Your task to perform on an android device: Check the news Image 0: 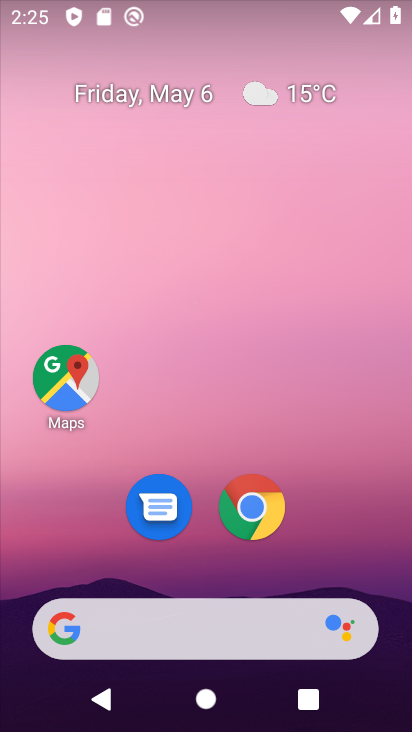
Step 0: drag from (336, 542) to (357, 125)
Your task to perform on an android device: Check the news Image 1: 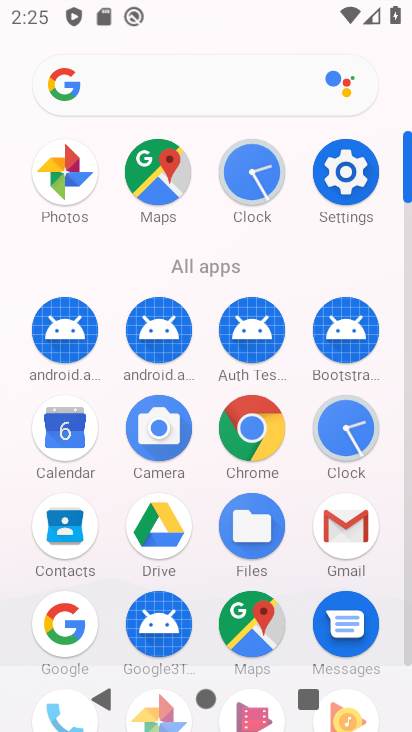
Step 1: click (256, 427)
Your task to perform on an android device: Check the news Image 2: 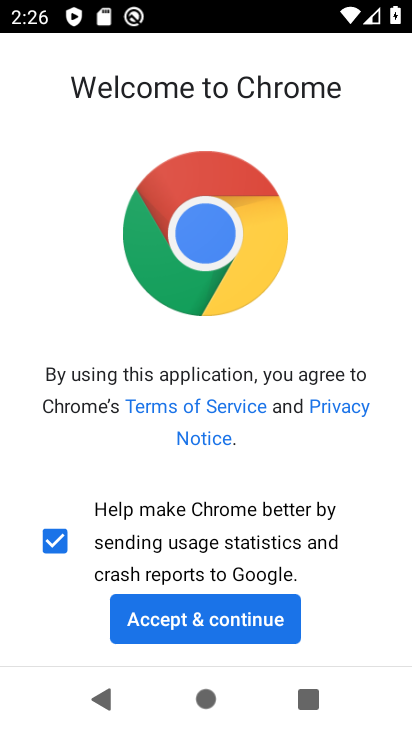
Step 2: click (207, 627)
Your task to perform on an android device: Check the news Image 3: 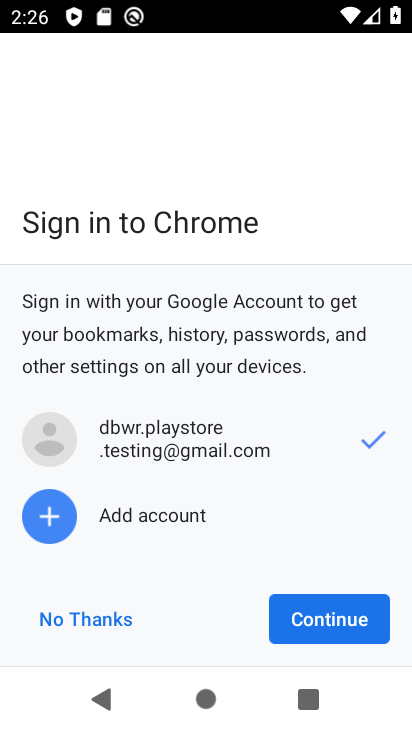
Step 3: click (335, 628)
Your task to perform on an android device: Check the news Image 4: 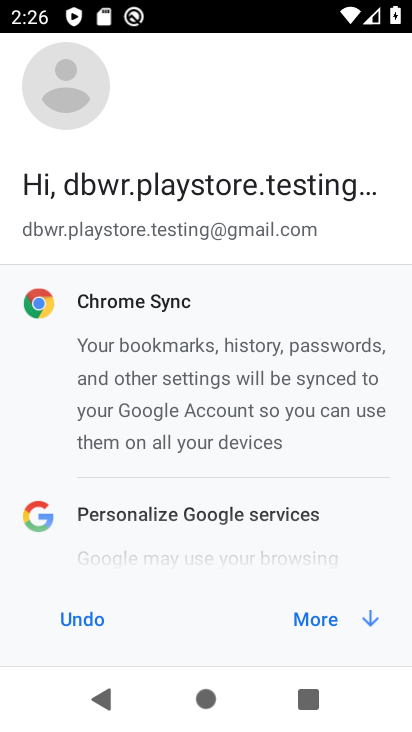
Step 4: click (322, 613)
Your task to perform on an android device: Check the news Image 5: 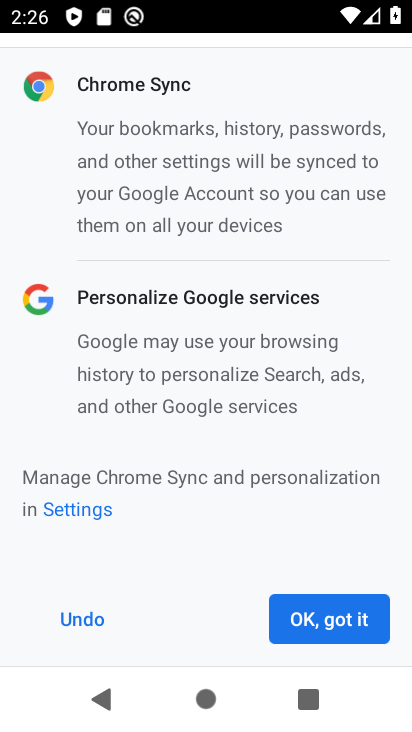
Step 5: click (321, 612)
Your task to perform on an android device: Check the news Image 6: 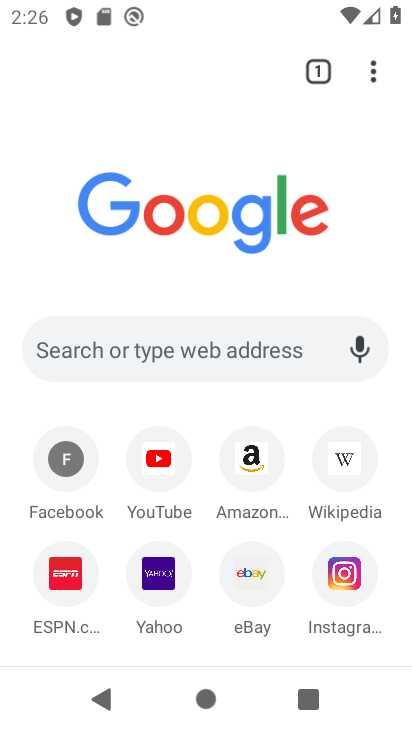
Step 6: click (152, 346)
Your task to perform on an android device: Check the news Image 7: 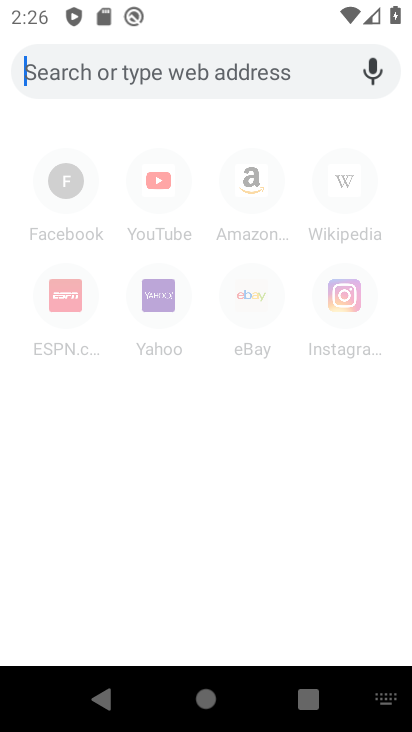
Step 7: type "check the news"
Your task to perform on an android device: Check the news Image 8: 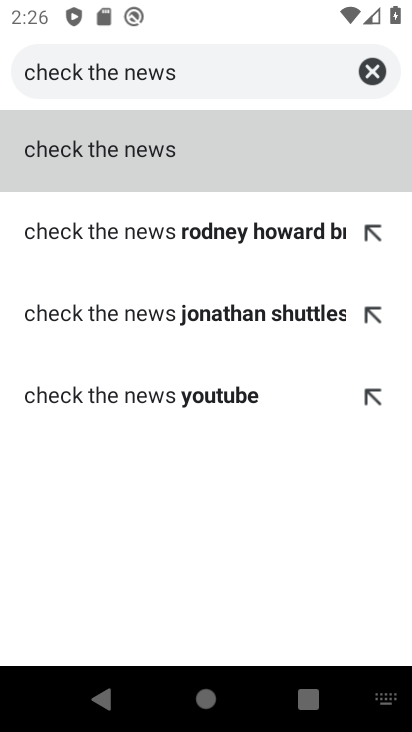
Step 8: click (92, 155)
Your task to perform on an android device: Check the news Image 9: 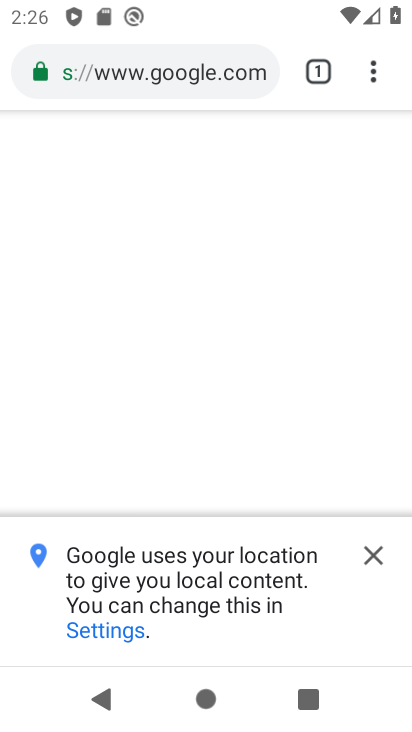
Step 9: click (372, 565)
Your task to perform on an android device: Check the news Image 10: 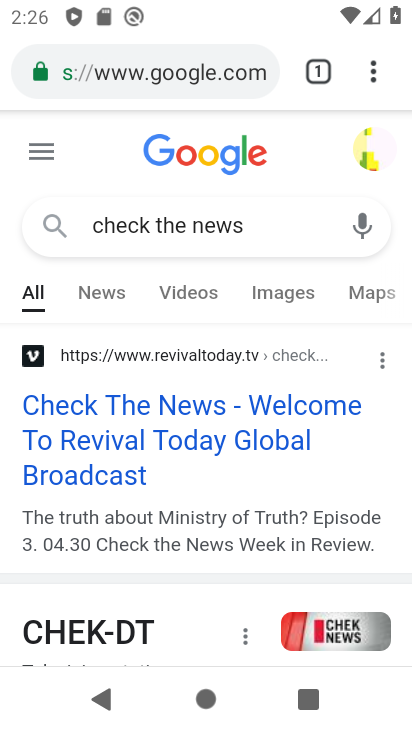
Step 10: task complete